Your task to perform on an android device: When is my next meeting? Image 0: 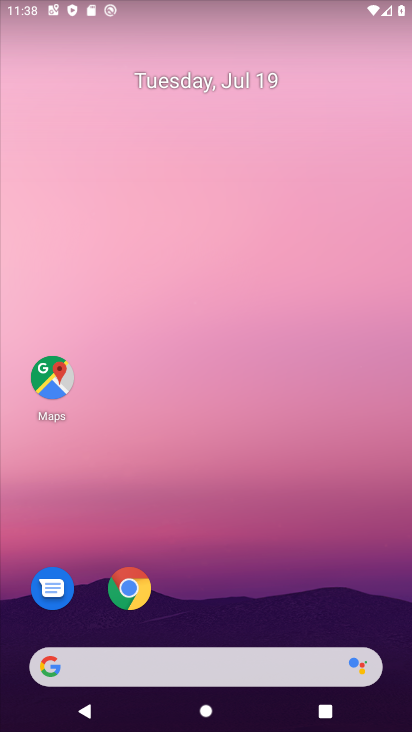
Step 0: drag from (187, 593) to (310, 8)
Your task to perform on an android device: When is my next meeting? Image 1: 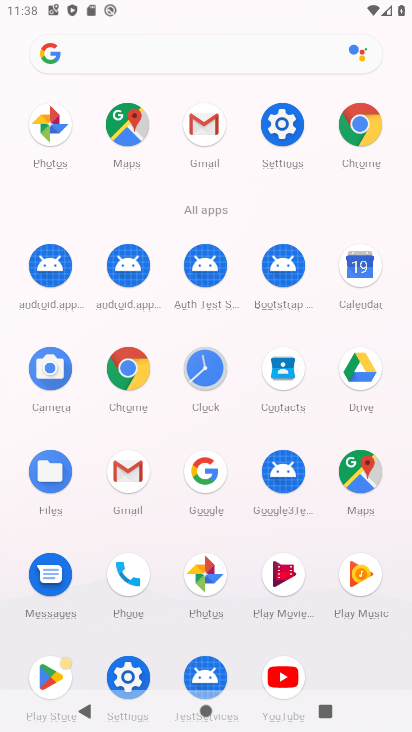
Step 1: click (367, 285)
Your task to perform on an android device: When is my next meeting? Image 2: 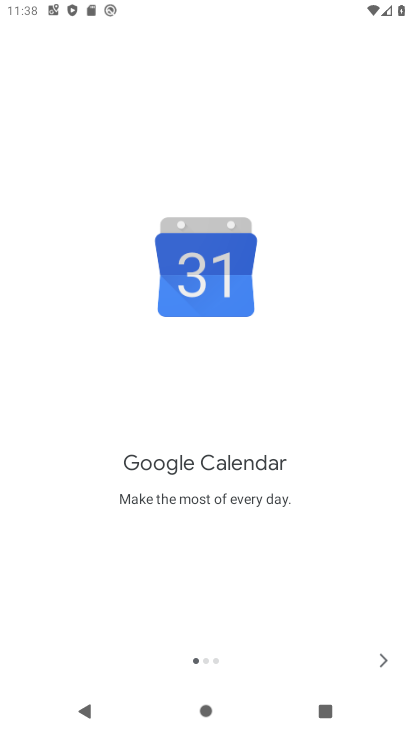
Step 2: click (382, 661)
Your task to perform on an android device: When is my next meeting? Image 3: 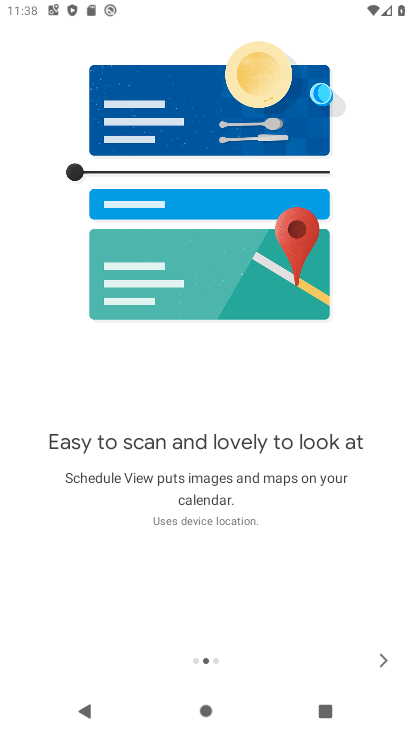
Step 3: click (384, 658)
Your task to perform on an android device: When is my next meeting? Image 4: 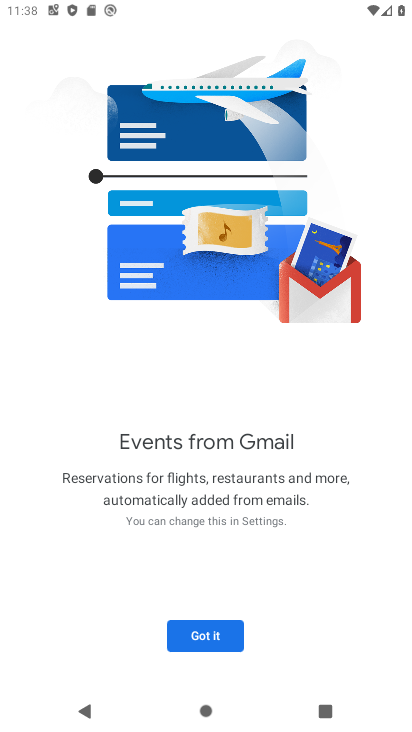
Step 4: click (212, 634)
Your task to perform on an android device: When is my next meeting? Image 5: 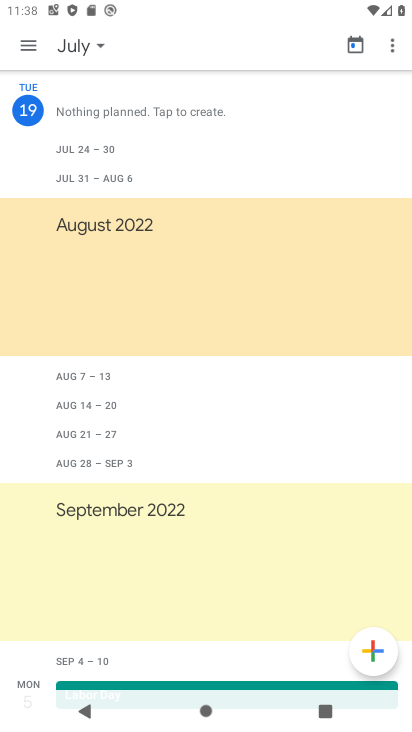
Step 5: click (30, 47)
Your task to perform on an android device: When is my next meeting? Image 6: 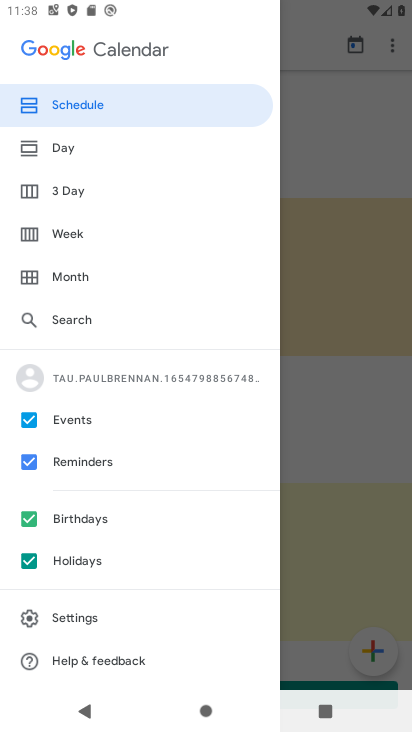
Step 6: click (91, 111)
Your task to perform on an android device: When is my next meeting? Image 7: 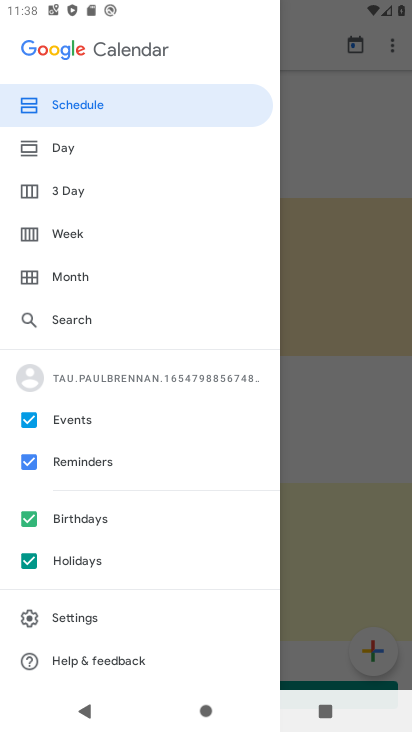
Step 7: click (97, 99)
Your task to perform on an android device: When is my next meeting? Image 8: 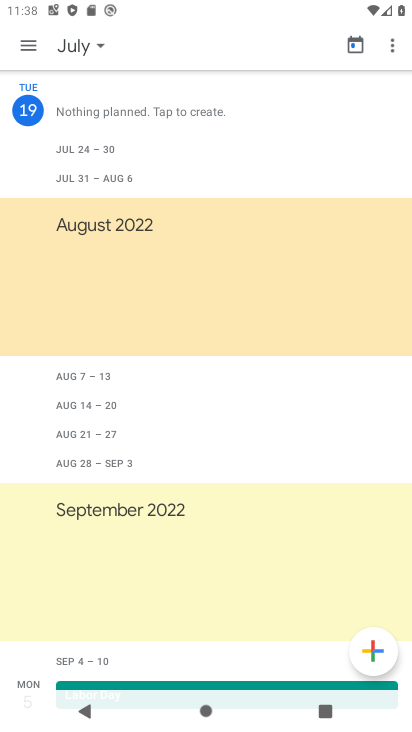
Step 8: task complete